Your task to perform on an android device: Add bose soundlink mini to the cart on bestbuy.com, then select checkout. Image 0: 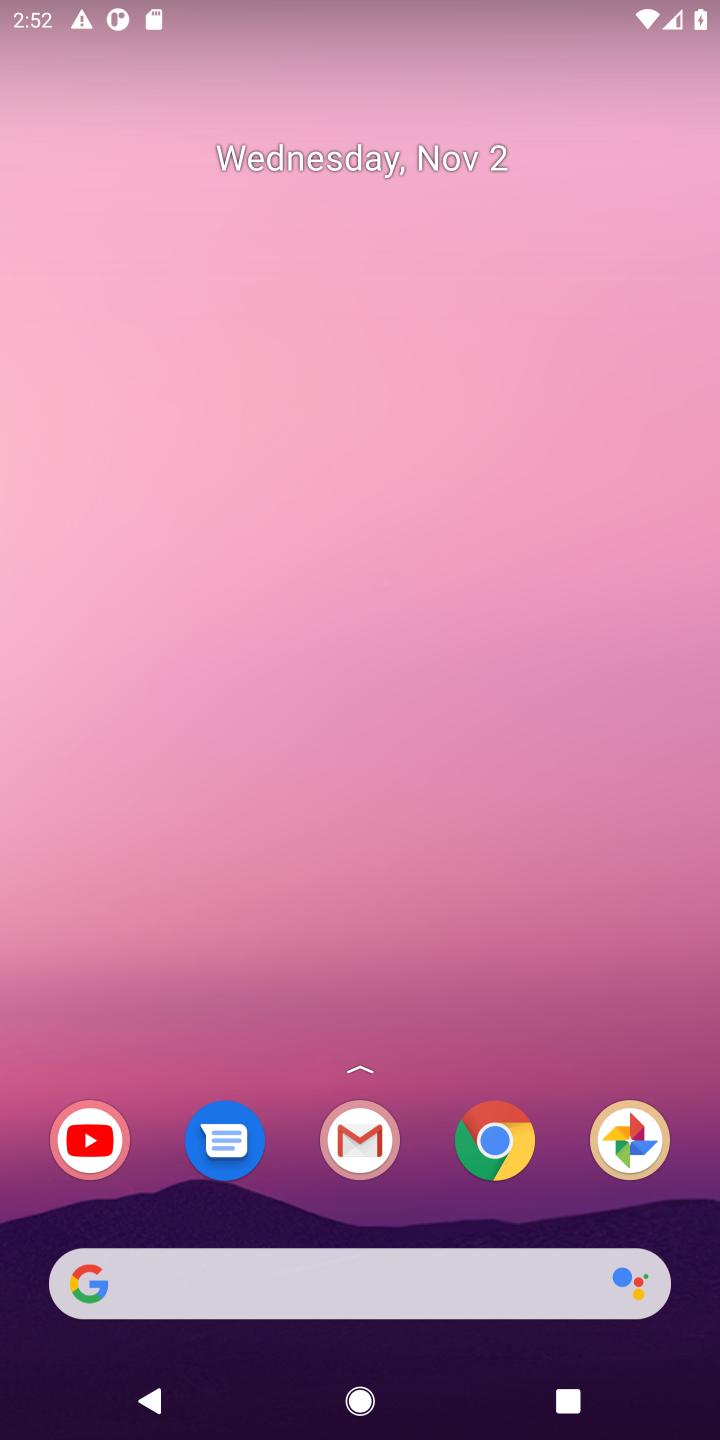
Step 0: press home button
Your task to perform on an android device: Add bose soundlink mini to the cart on bestbuy.com, then select checkout. Image 1: 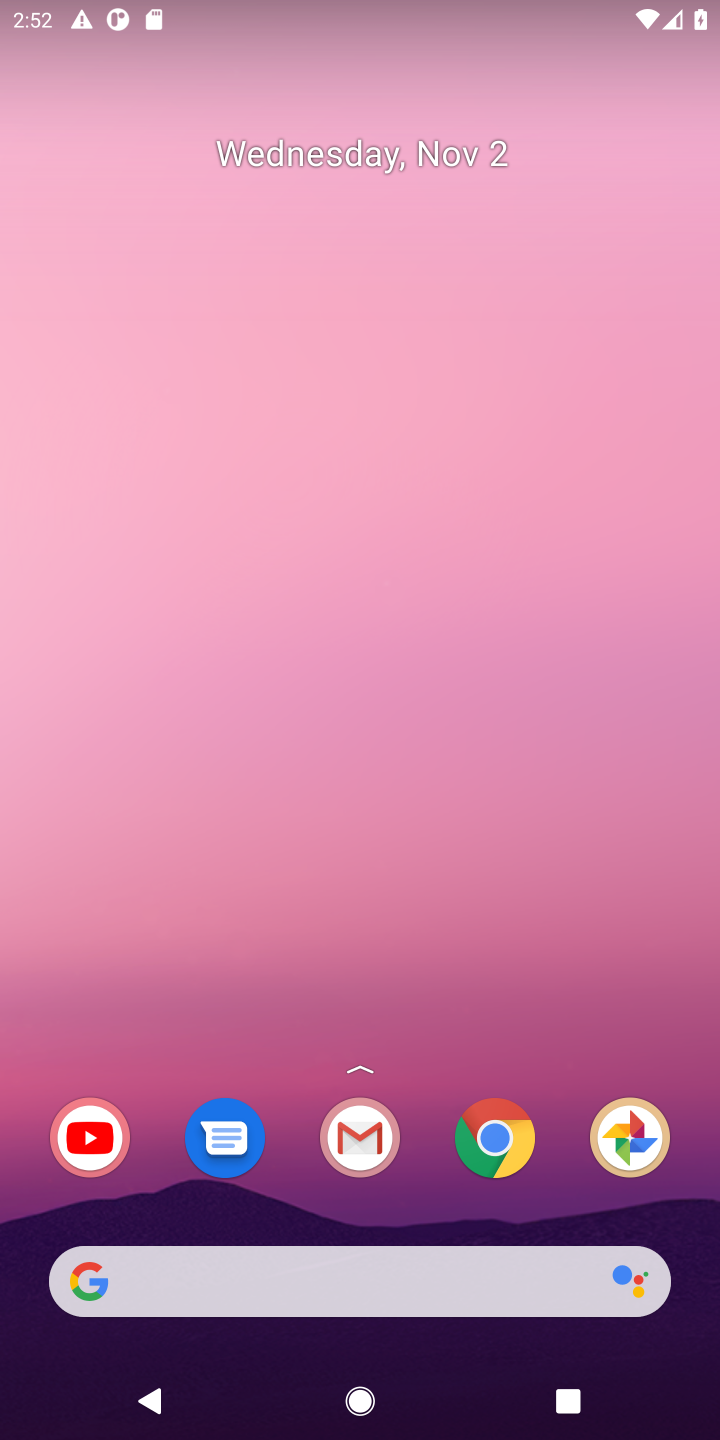
Step 1: click (135, 1274)
Your task to perform on an android device: Add bose soundlink mini to the cart on bestbuy.com, then select checkout. Image 2: 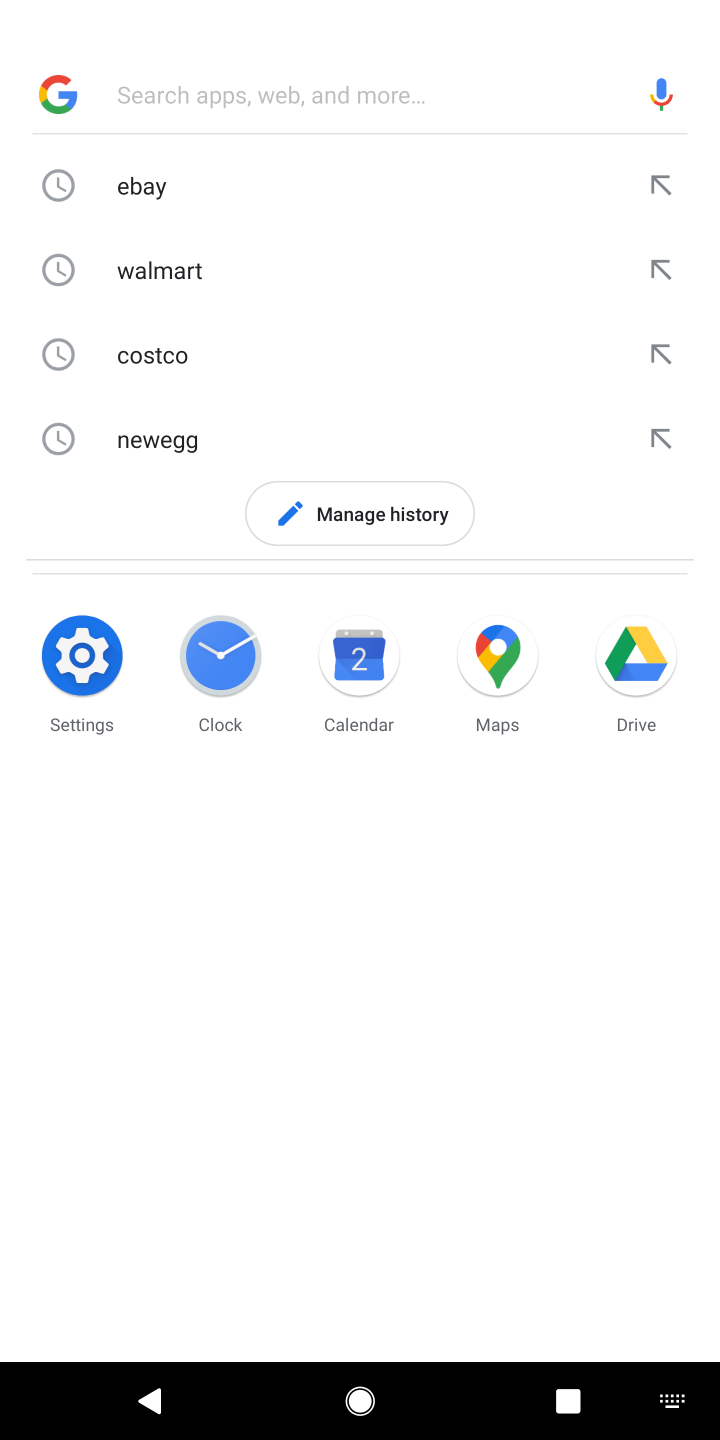
Step 2: type "bestbuy.com"
Your task to perform on an android device: Add bose soundlink mini to the cart on bestbuy.com, then select checkout. Image 3: 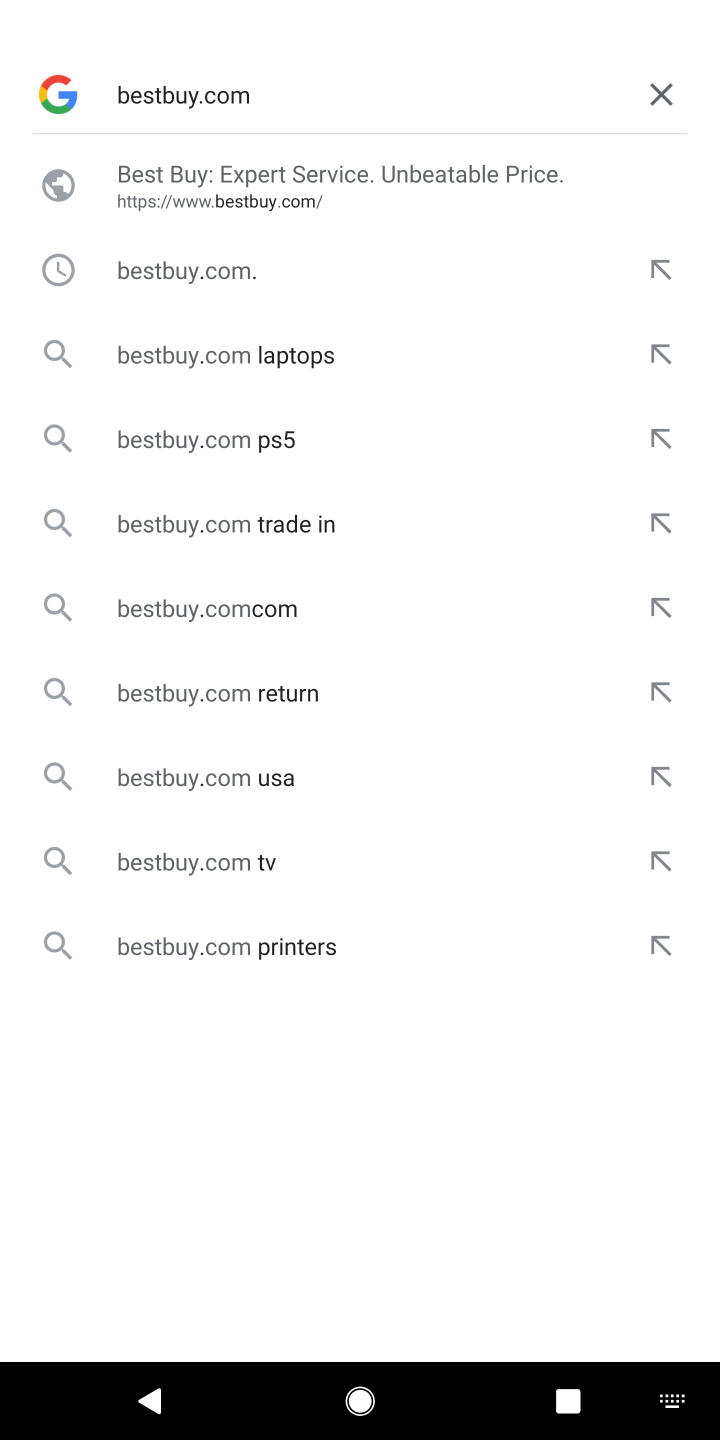
Step 3: press enter
Your task to perform on an android device: Add bose soundlink mini to the cart on bestbuy.com, then select checkout. Image 4: 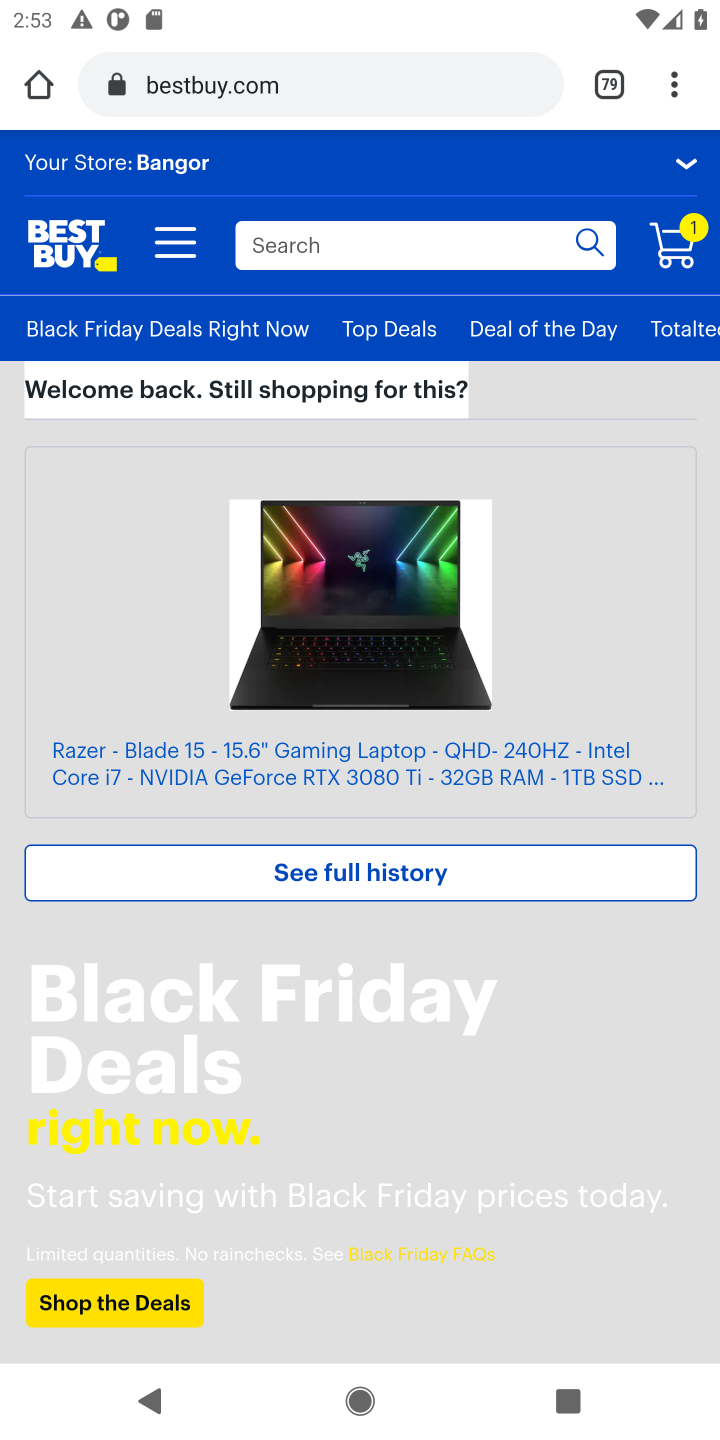
Step 4: click (311, 243)
Your task to perform on an android device: Add bose soundlink mini to the cart on bestbuy.com, then select checkout. Image 5: 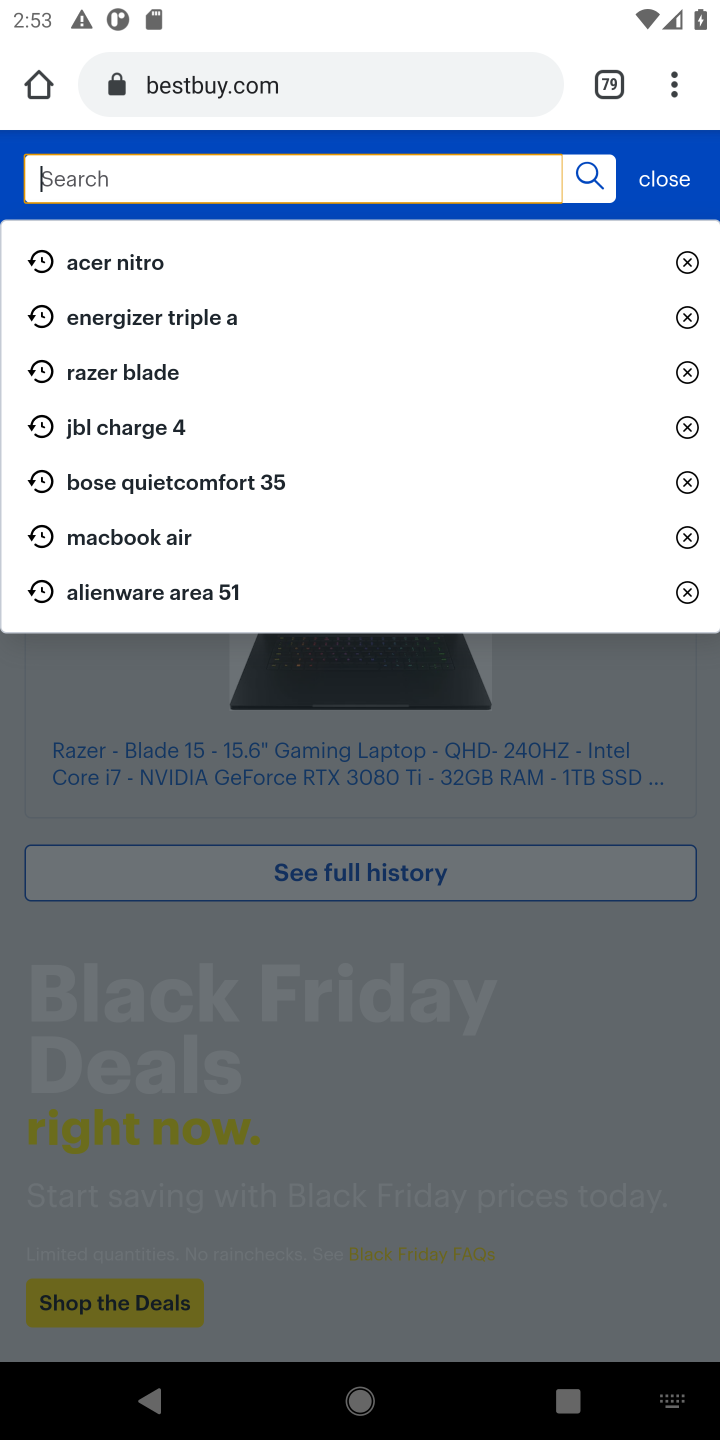
Step 5: type "bose soundlink mini"
Your task to perform on an android device: Add bose soundlink mini to the cart on bestbuy.com, then select checkout. Image 6: 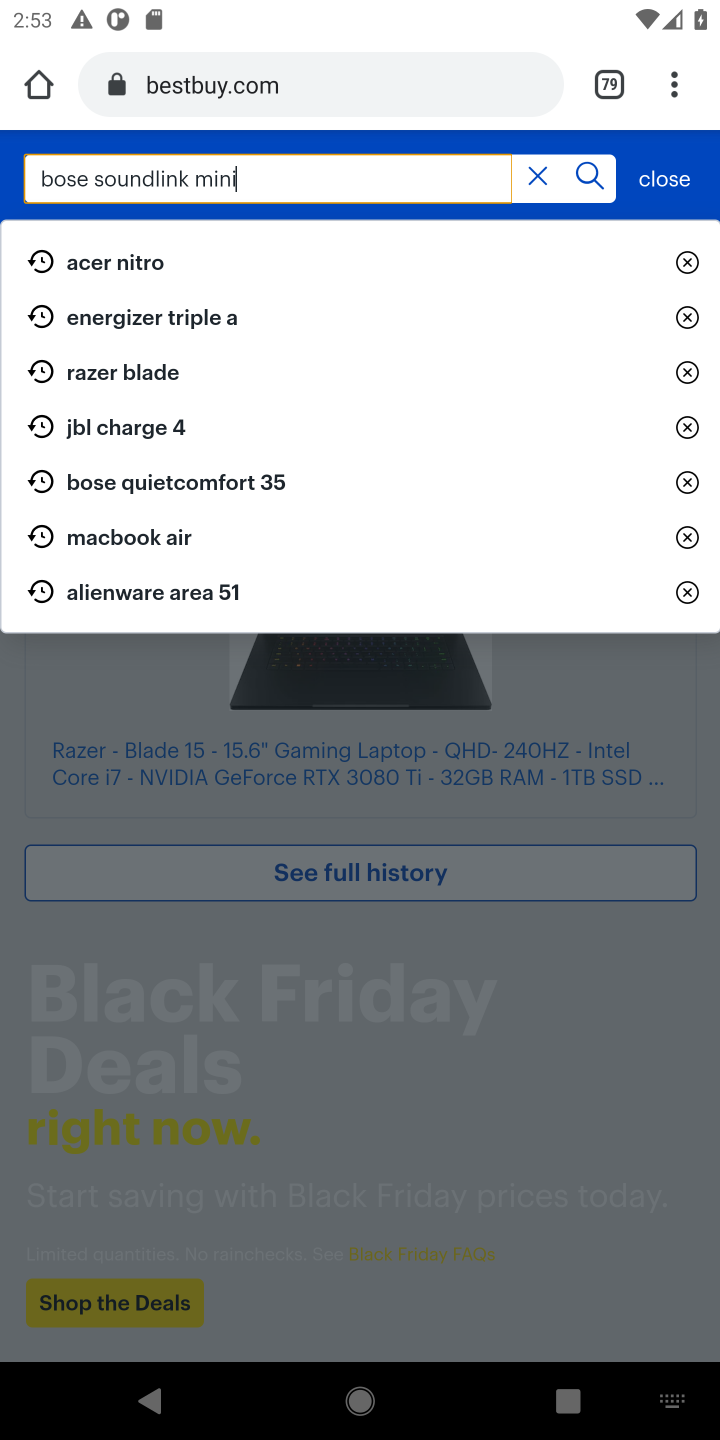
Step 6: press enter
Your task to perform on an android device: Add bose soundlink mini to the cart on bestbuy.com, then select checkout. Image 7: 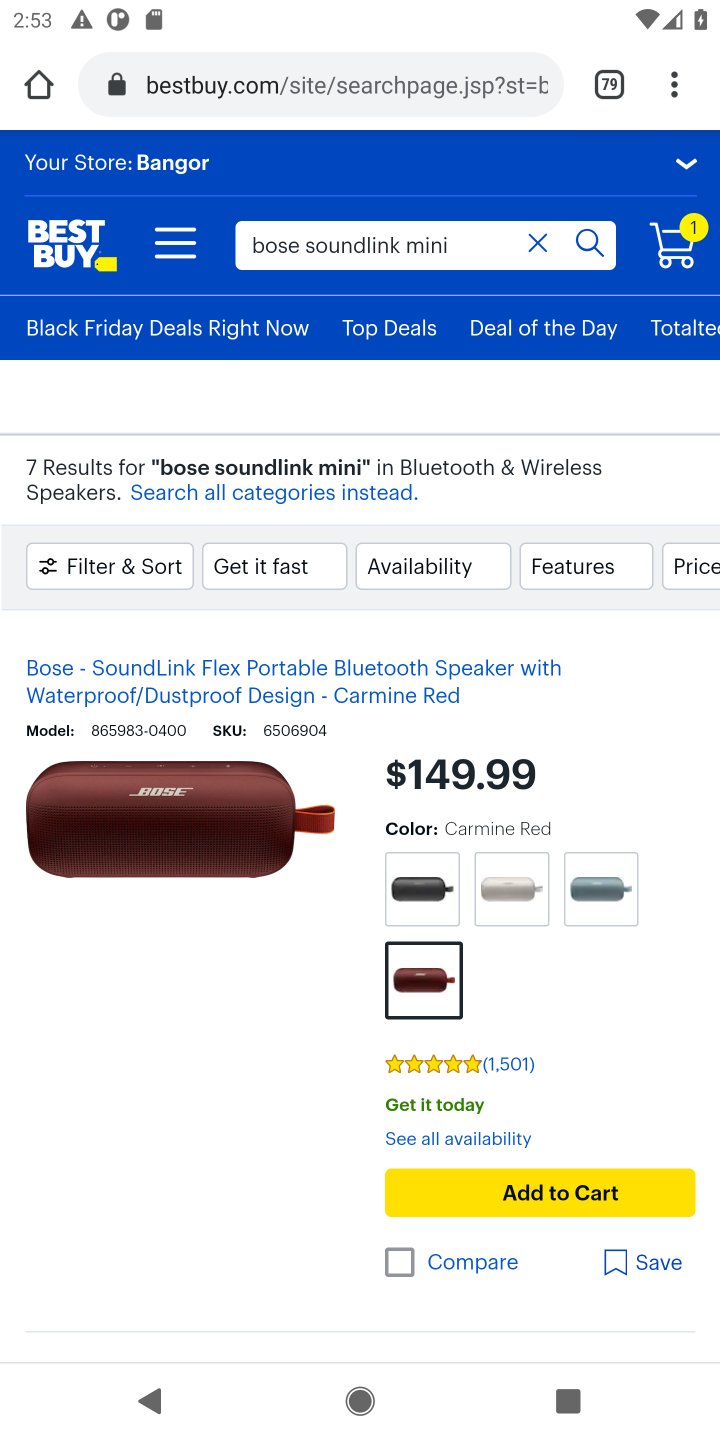
Step 7: drag from (272, 1158) to (270, 753)
Your task to perform on an android device: Add bose soundlink mini to the cart on bestbuy.com, then select checkout. Image 8: 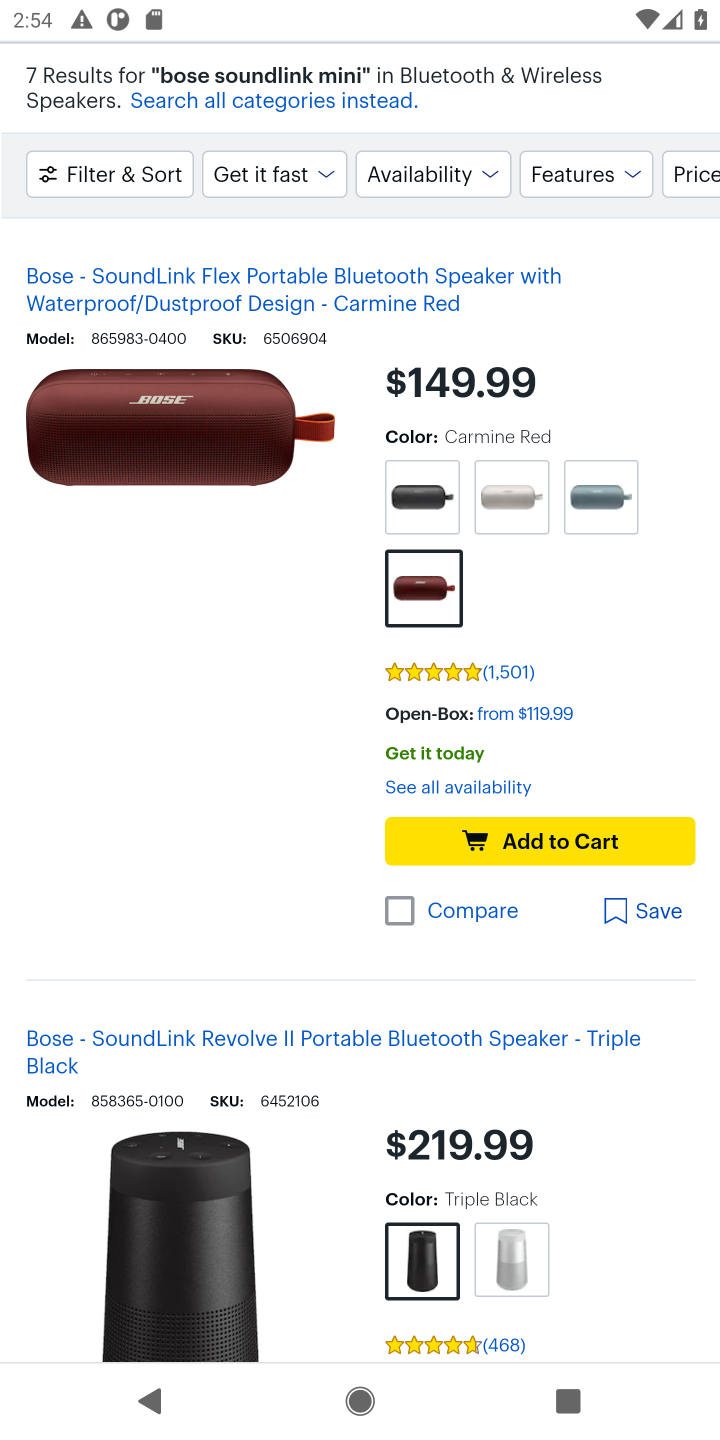
Step 8: click (535, 844)
Your task to perform on an android device: Add bose soundlink mini to the cart on bestbuy.com, then select checkout. Image 9: 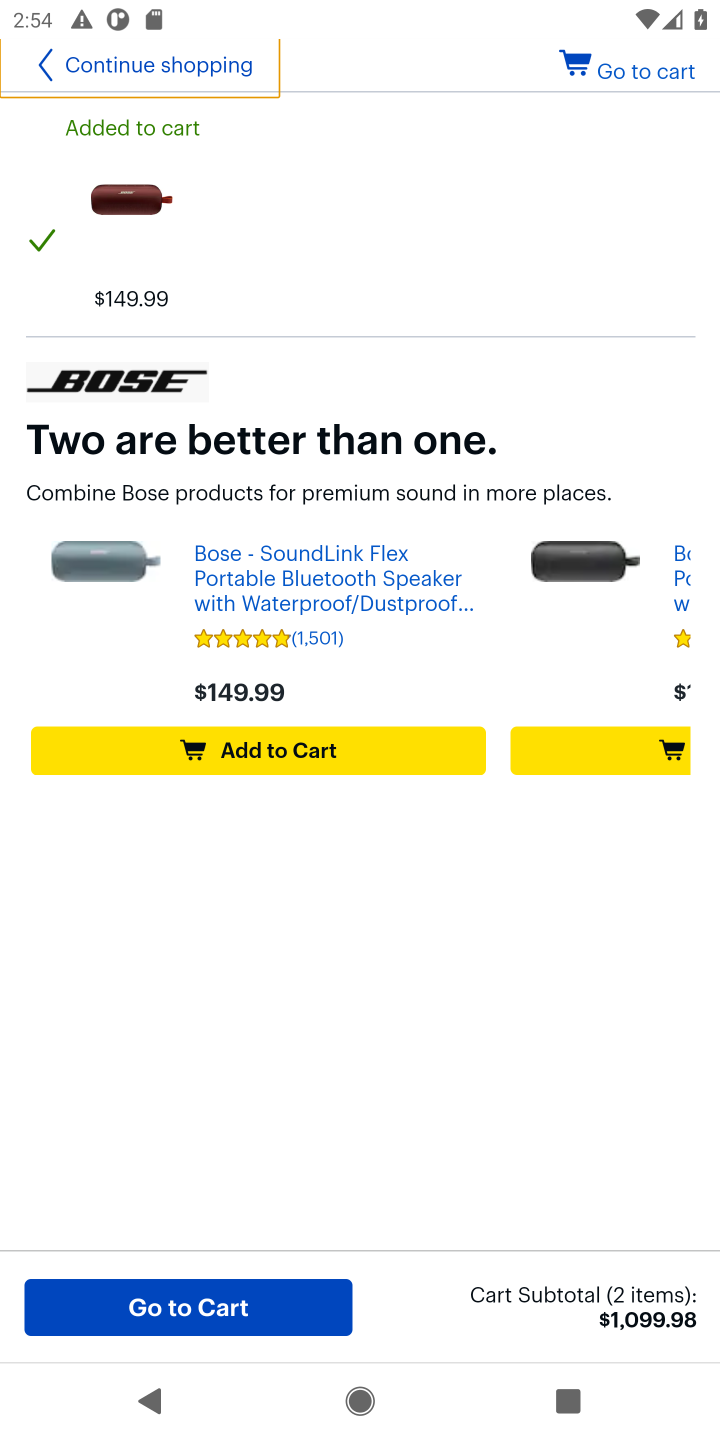
Step 9: click (164, 1306)
Your task to perform on an android device: Add bose soundlink mini to the cart on bestbuy.com, then select checkout. Image 10: 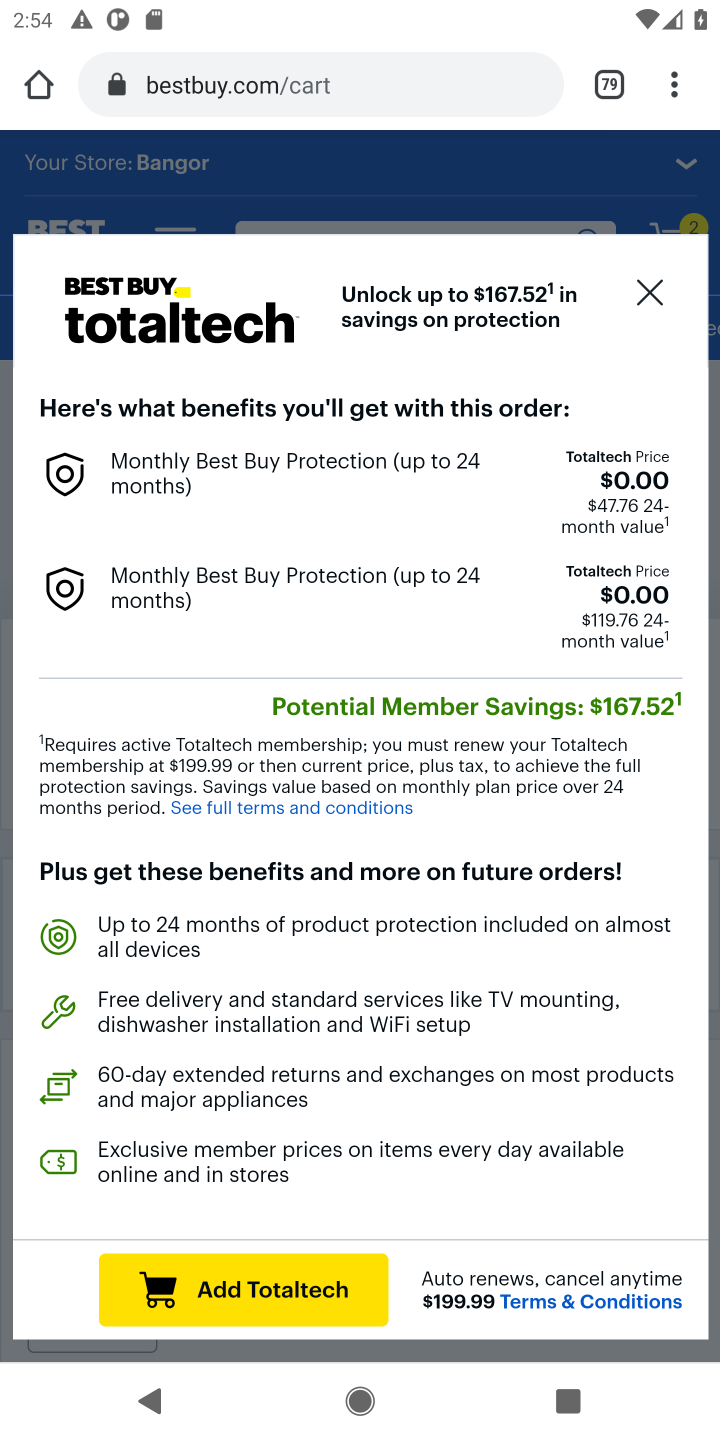
Step 10: click (645, 294)
Your task to perform on an android device: Add bose soundlink mini to the cart on bestbuy.com, then select checkout. Image 11: 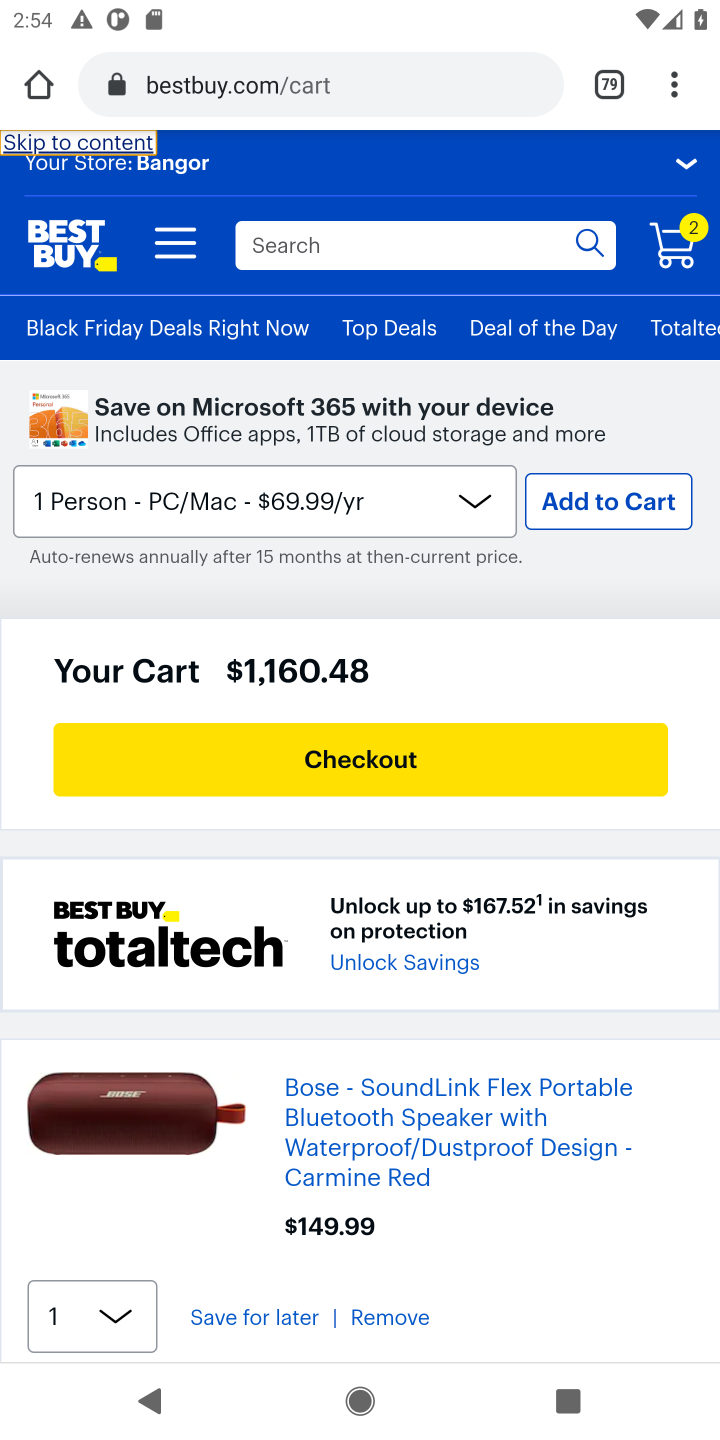
Step 11: click (359, 751)
Your task to perform on an android device: Add bose soundlink mini to the cart on bestbuy.com, then select checkout. Image 12: 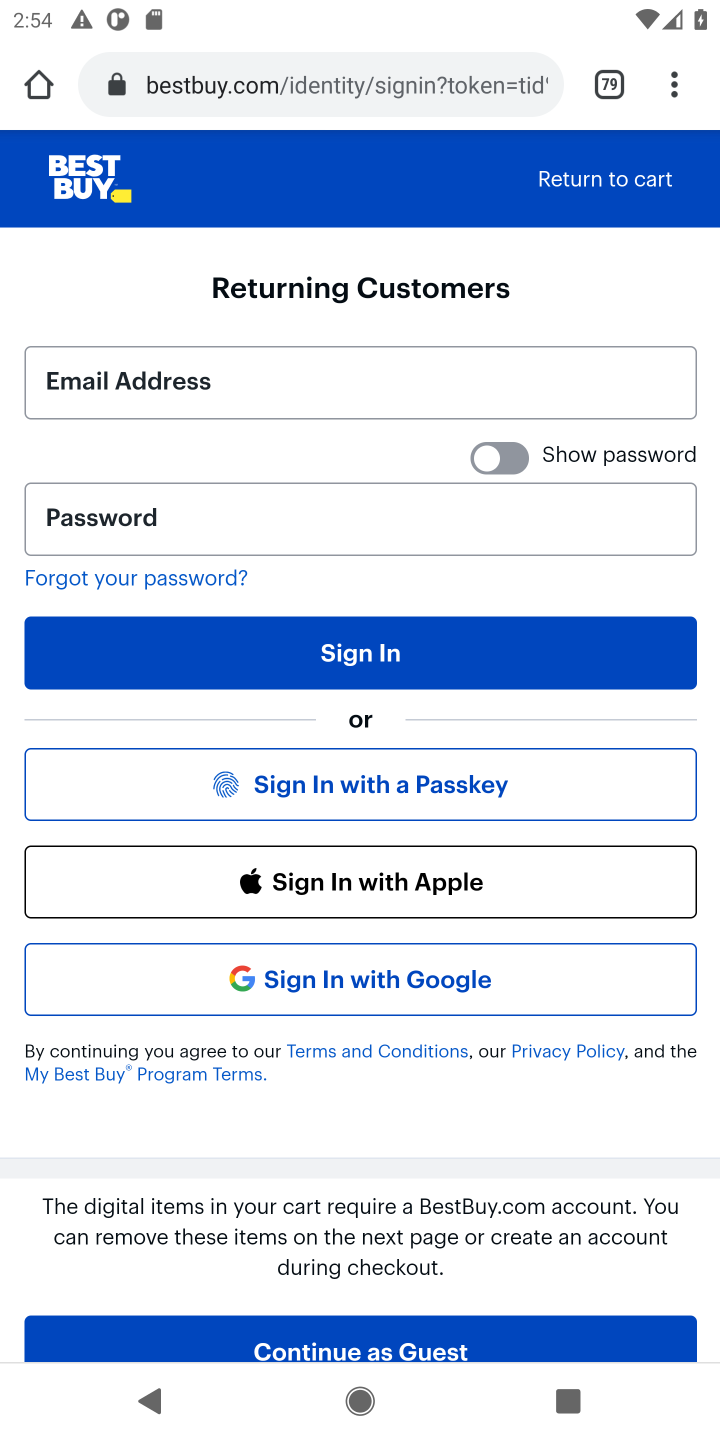
Step 12: task complete